Your task to perform on an android device: turn notification dots on Image 0: 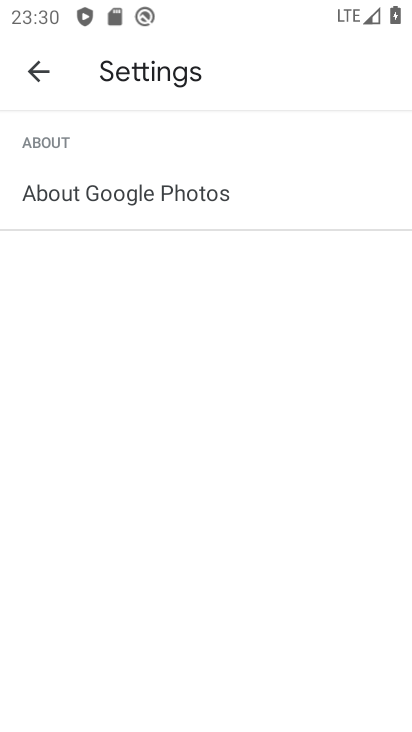
Step 0: press home button
Your task to perform on an android device: turn notification dots on Image 1: 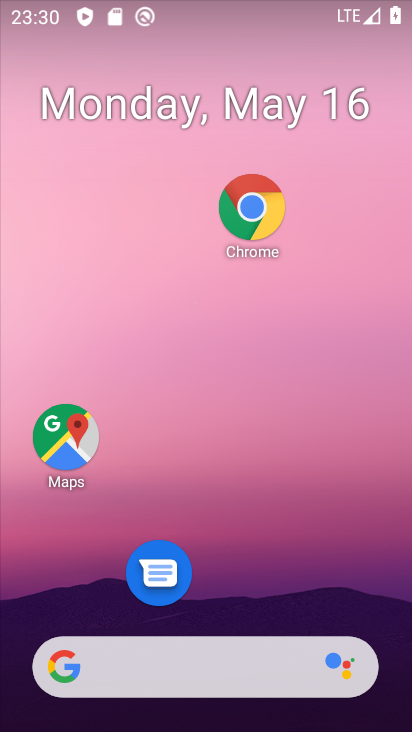
Step 1: drag from (241, 546) to (275, 62)
Your task to perform on an android device: turn notification dots on Image 2: 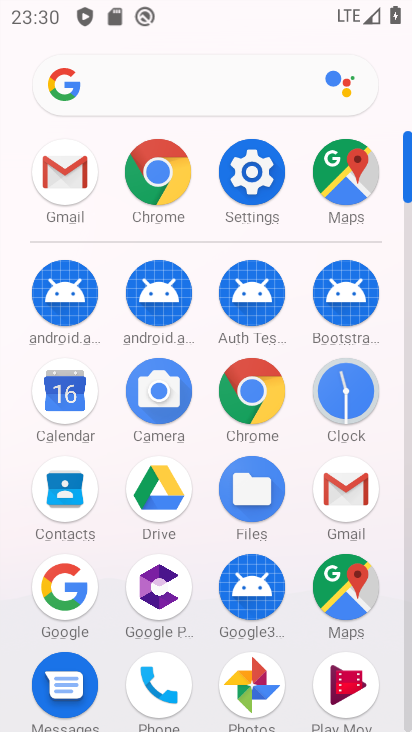
Step 2: click (241, 175)
Your task to perform on an android device: turn notification dots on Image 3: 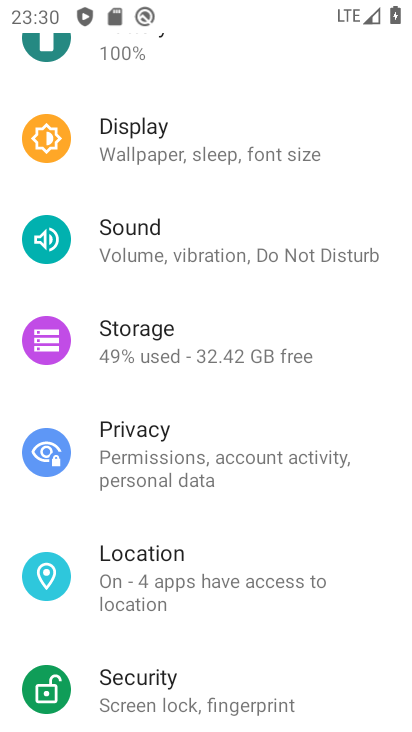
Step 3: drag from (228, 267) to (267, 728)
Your task to perform on an android device: turn notification dots on Image 4: 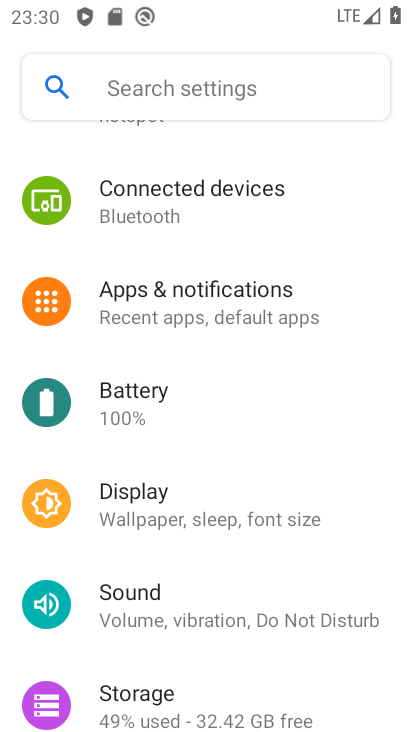
Step 4: click (213, 295)
Your task to perform on an android device: turn notification dots on Image 5: 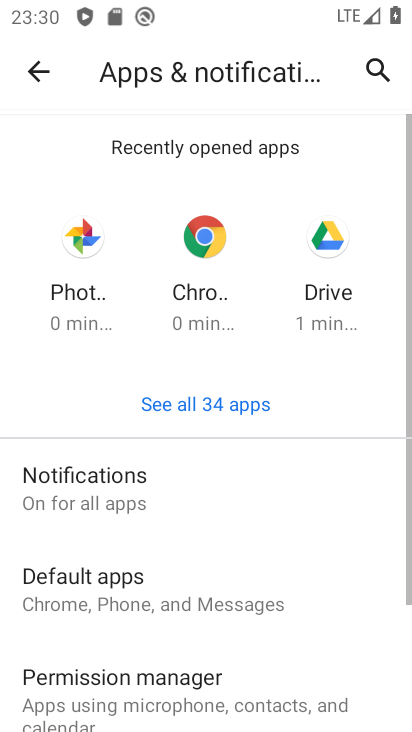
Step 5: drag from (297, 624) to (316, 257)
Your task to perform on an android device: turn notification dots on Image 6: 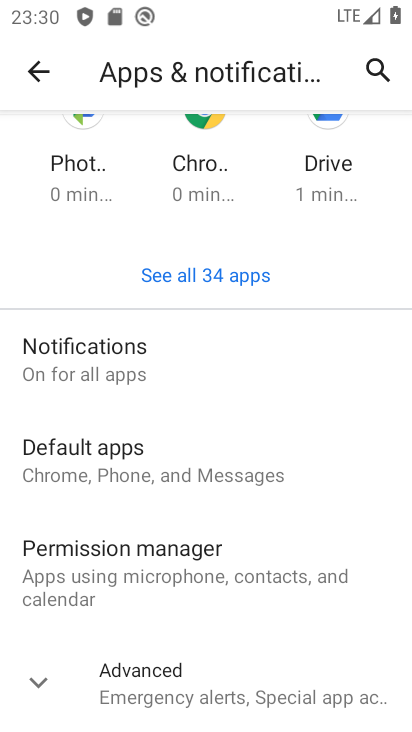
Step 6: click (215, 705)
Your task to perform on an android device: turn notification dots on Image 7: 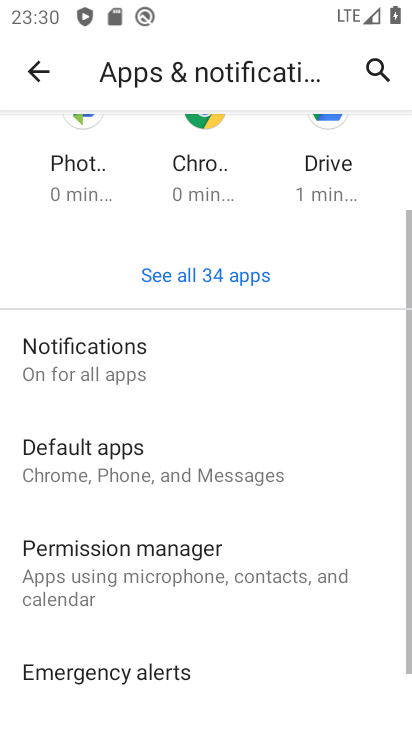
Step 7: drag from (218, 670) to (262, 268)
Your task to perform on an android device: turn notification dots on Image 8: 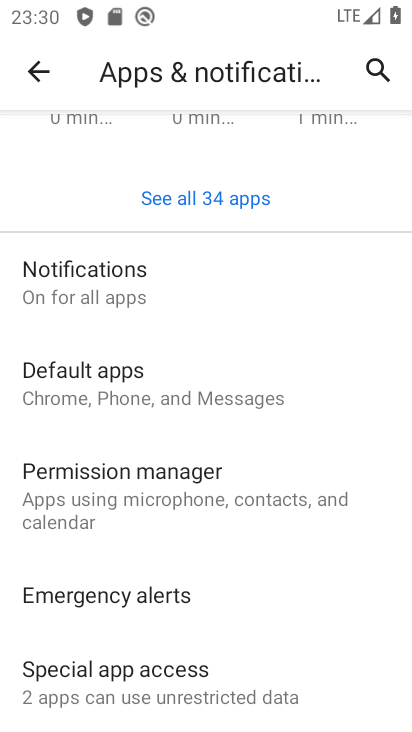
Step 8: click (162, 301)
Your task to perform on an android device: turn notification dots on Image 9: 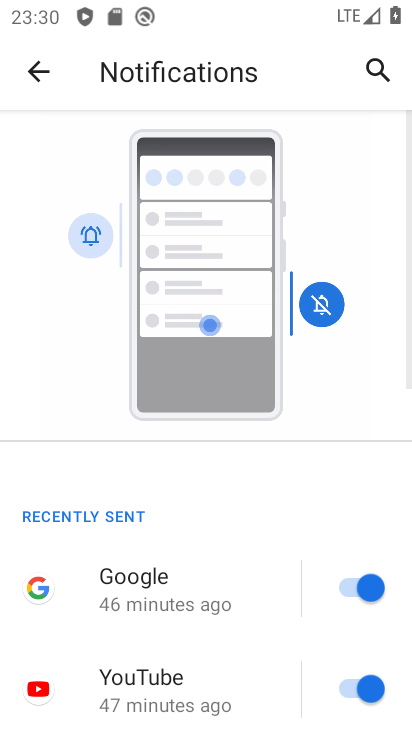
Step 9: drag from (220, 678) to (276, 188)
Your task to perform on an android device: turn notification dots on Image 10: 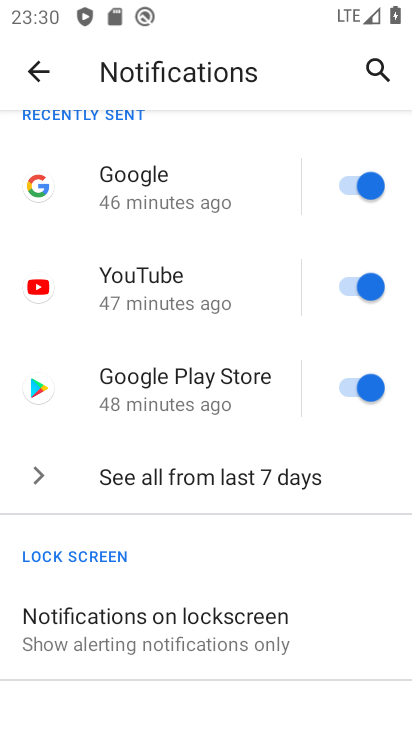
Step 10: drag from (285, 634) to (299, 289)
Your task to perform on an android device: turn notification dots on Image 11: 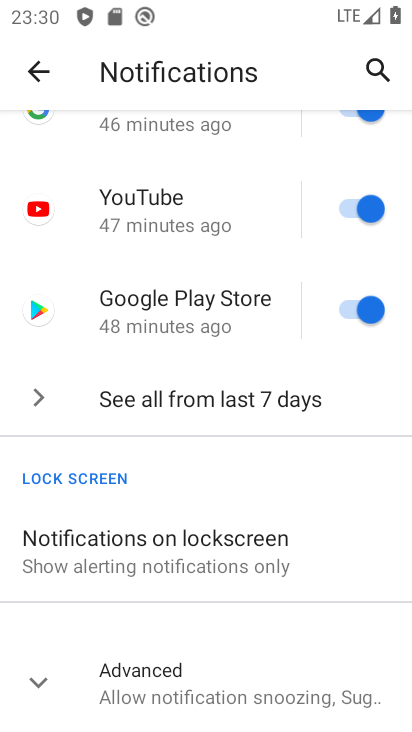
Step 11: click (242, 687)
Your task to perform on an android device: turn notification dots on Image 12: 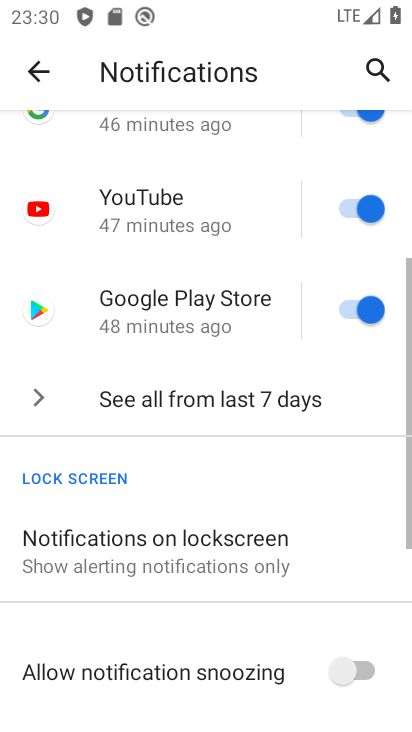
Step 12: task complete